Your task to perform on an android device: toggle improve location accuracy Image 0: 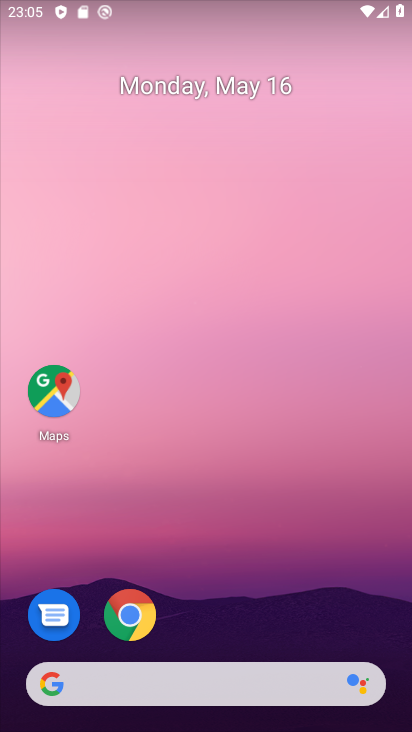
Step 0: drag from (241, 630) to (173, 123)
Your task to perform on an android device: toggle improve location accuracy Image 1: 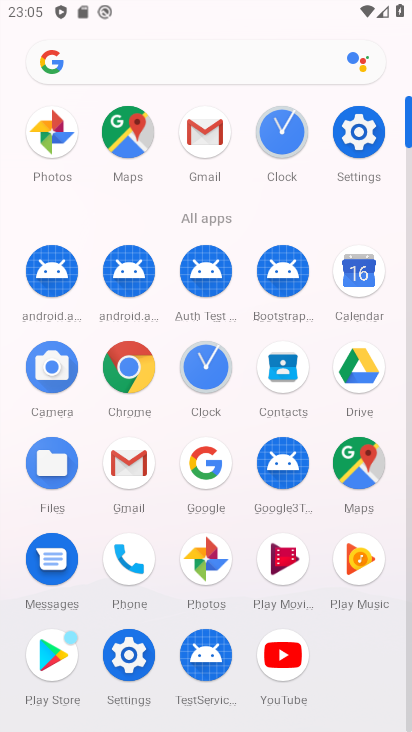
Step 1: click (352, 134)
Your task to perform on an android device: toggle improve location accuracy Image 2: 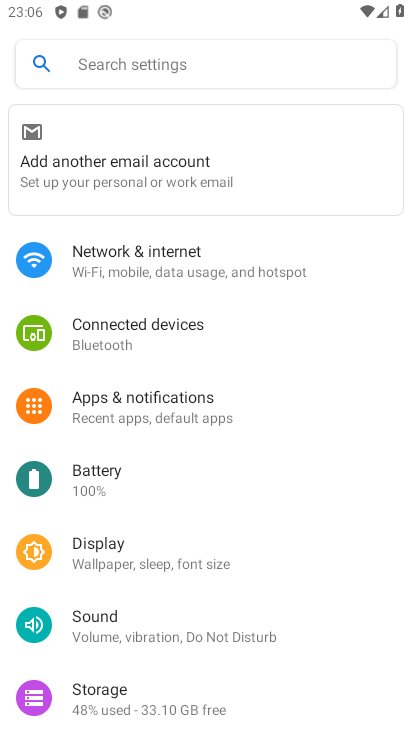
Step 2: drag from (290, 664) to (216, 156)
Your task to perform on an android device: toggle improve location accuracy Image 3: 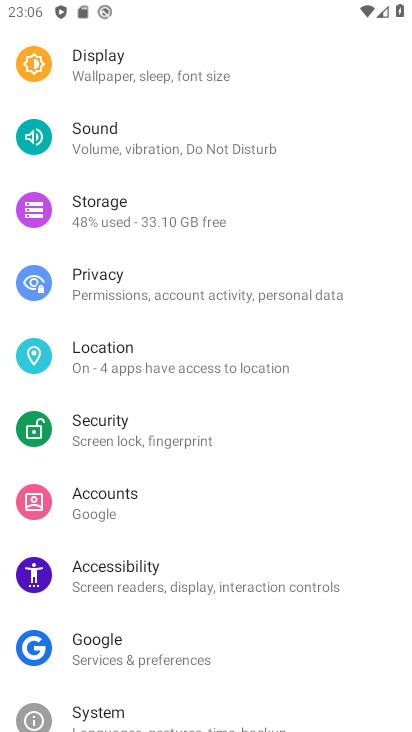
Step 3: click (143, 374)
Your task to perform on an android device: toggle improve location accuracy Image 4: 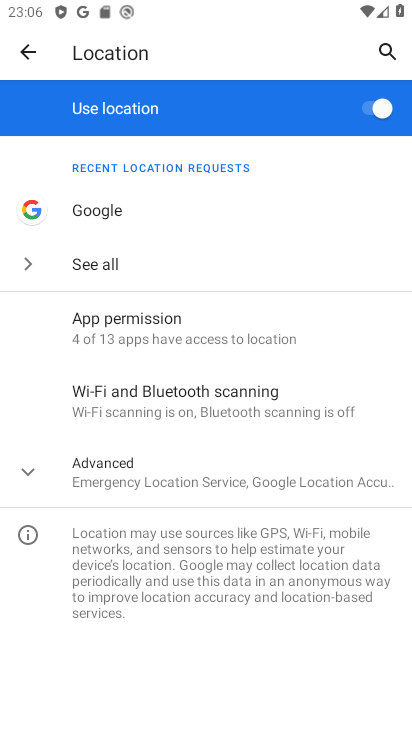
Step 4: click (171, 471)
Your task to perform on an android device: toggle improve location accuracy Image 5: 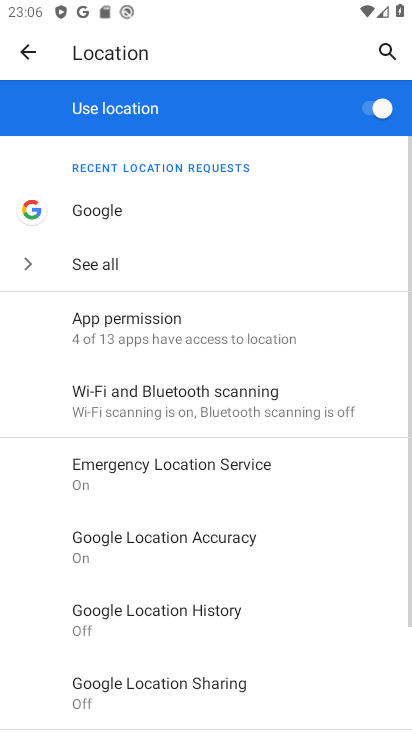
Step 5: click (184, 548)
Your task to perform on an android device: toggle improve location accuracy Image 6: 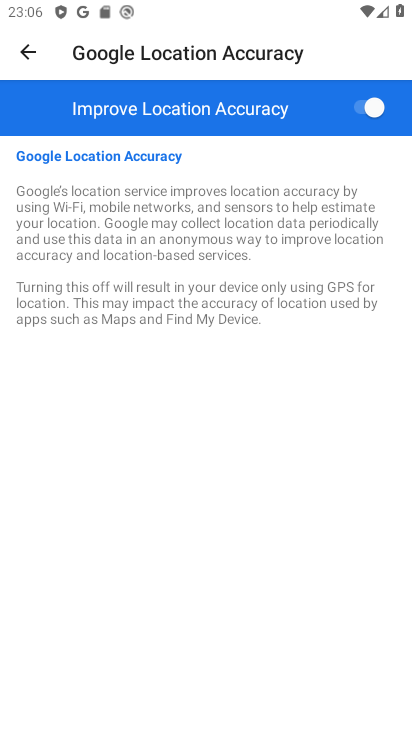
Step 6: click (369, 110)
Your task to perform on an android device: toggle improve location accuracy Image 7: 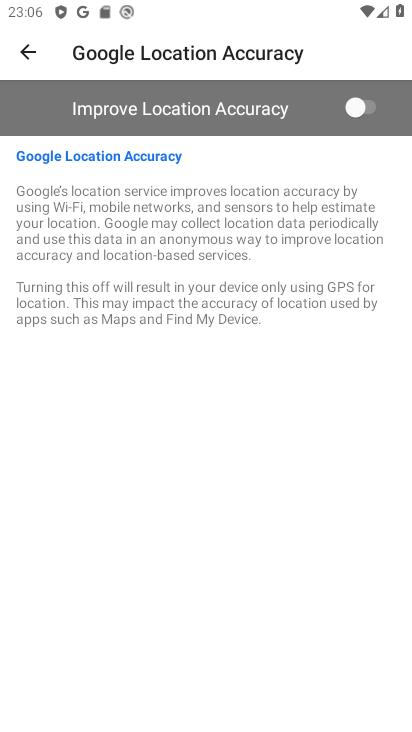
Step 7: task complete